Your task to perform on an android device: Go to internet settings Image 0: 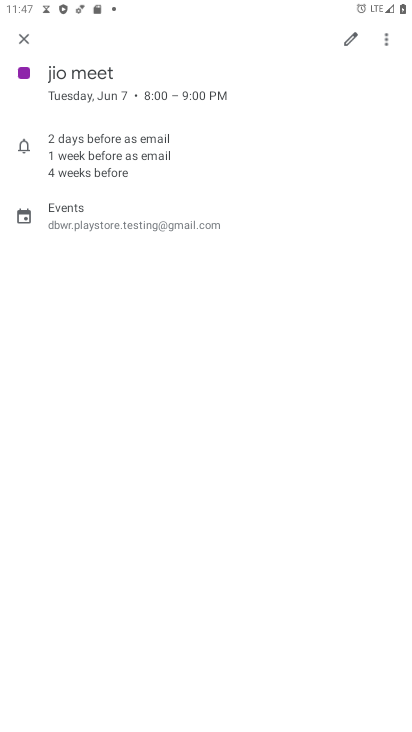
Step 0: click (21, 41)
Your task to perform on an android device: Go to internet settings Image 1: 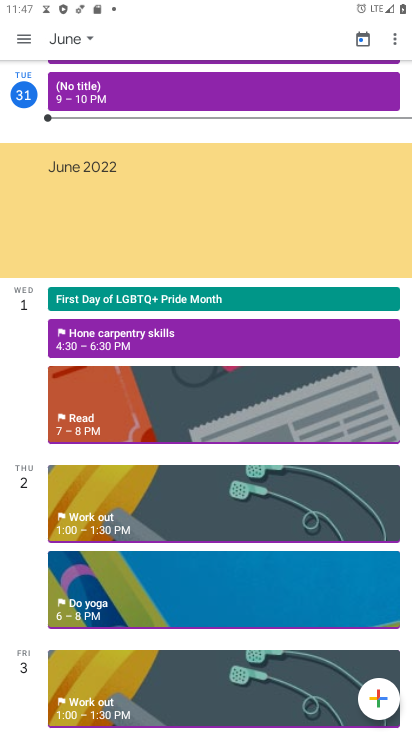
Step 1: press back button
Your task to perform on an android device: Go to internet settings Image 2: 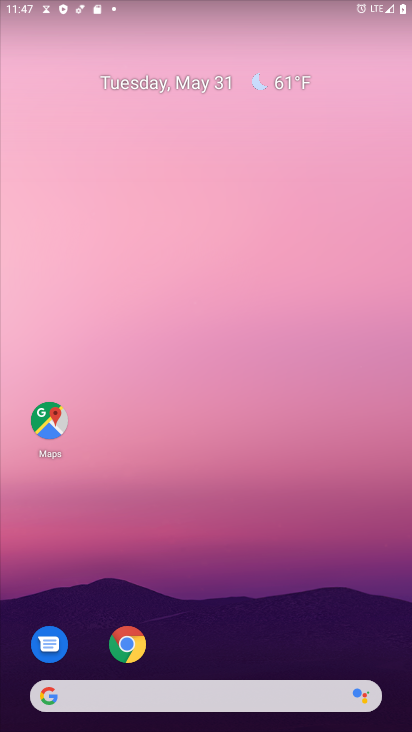
Step 2: drag from (286, 596) to (273, 72)
Your task to perform on an android device: Go to internet settings Image 3: 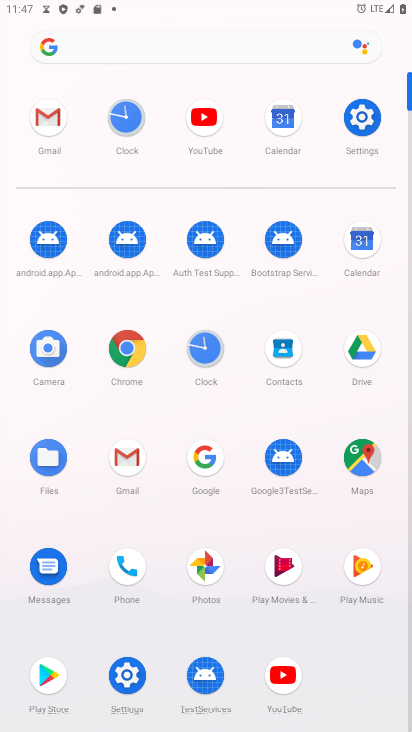
Step 3: click (345, 118)
Your task to perform on an android device: Go to internet settings Image 4: 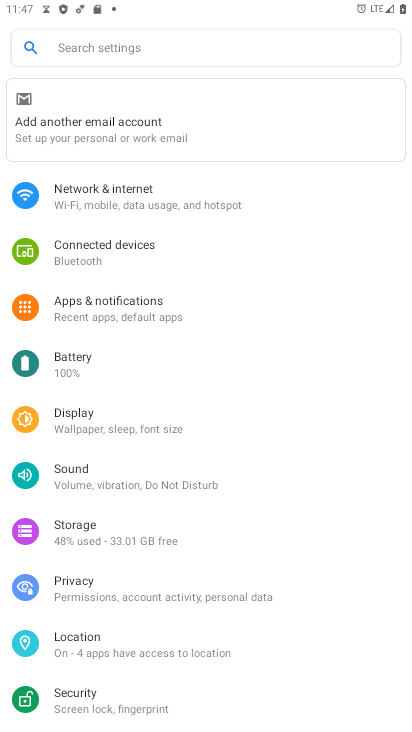
Step 4: click (139, 199)
Your task to perform on an android device: Go to internet settings Image 5: 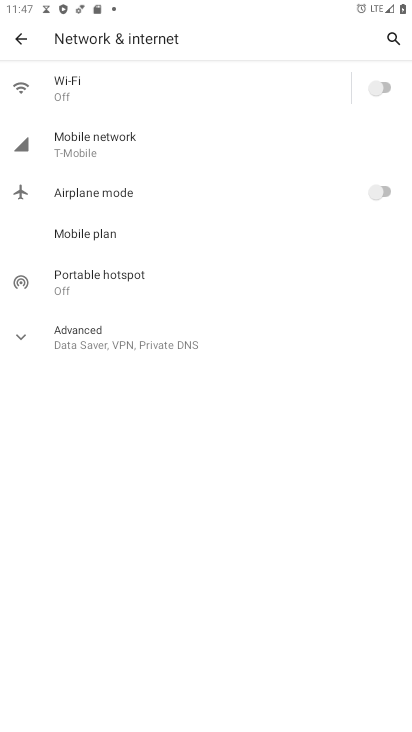
Step 5: task complete